Your task to perform on an android device: Open ESPN.com Image 0: 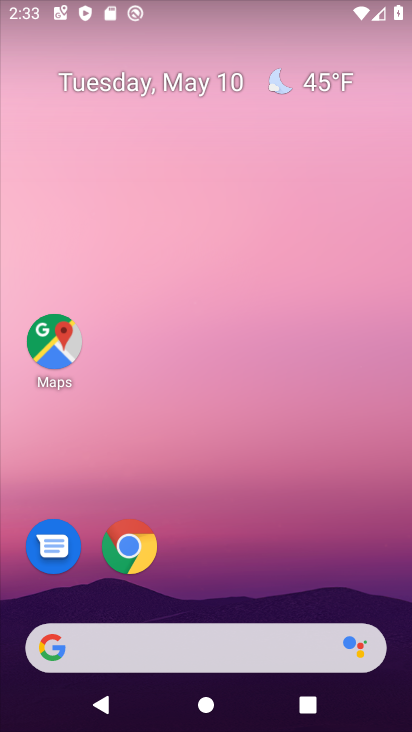
Step 0: drag from (260, 507) to (206, 59)
Your task to perform on an android device: Open ESPN.com Image 1: 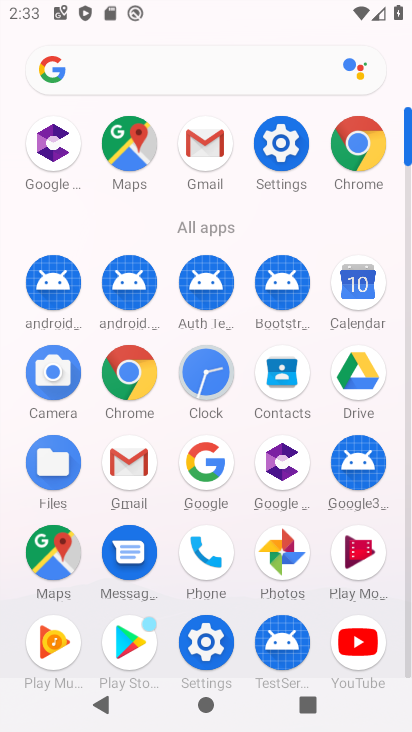
Step 1: click (356, 138)
Your task to perform on an android device: Open ESPN.com Image 2: 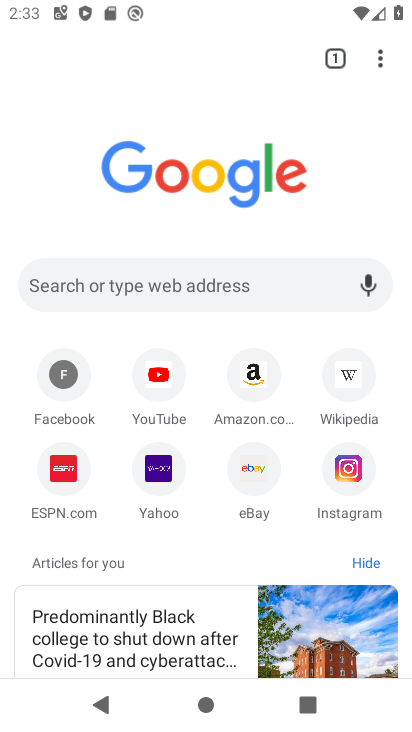
Step 2: click (55, 492)
Your task to perform on an android device: Open ESPN.com Image 3: 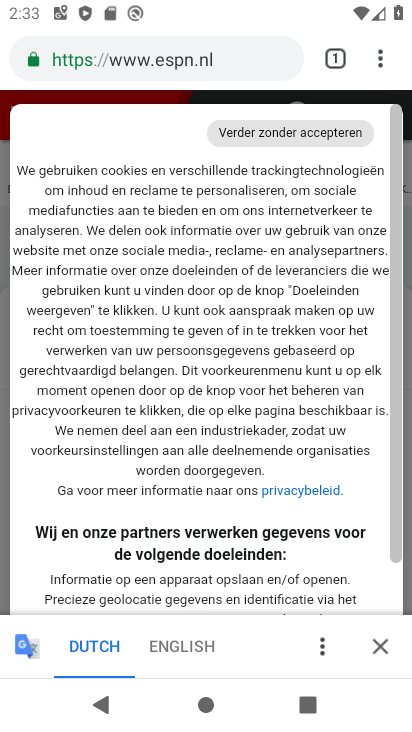
Step 3: task complete